Your task to perform on an android device: Go to settings Image 0: 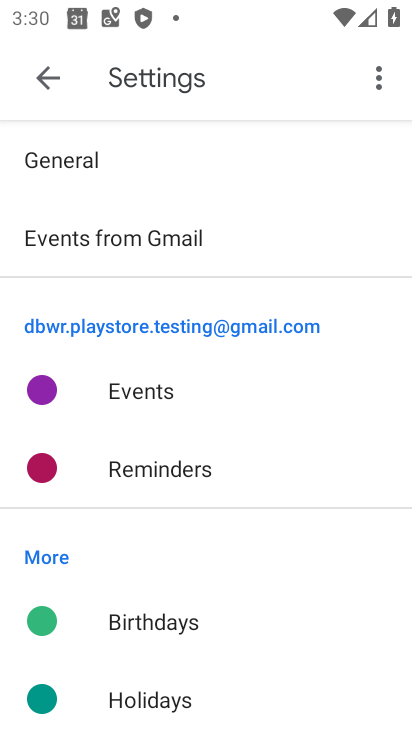
Step 0: press home button
Your task to perform on an android device: Go to settings Image 1: 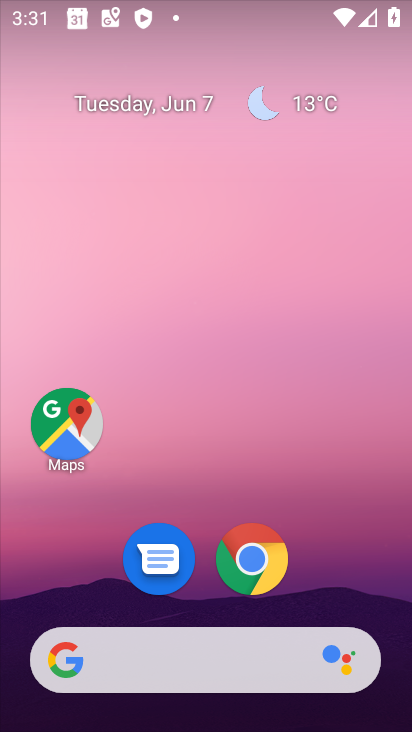
Step 1: drag from (329, 568) to (231, 235)
Your task to perform on an android device: Go to settings Image 2: 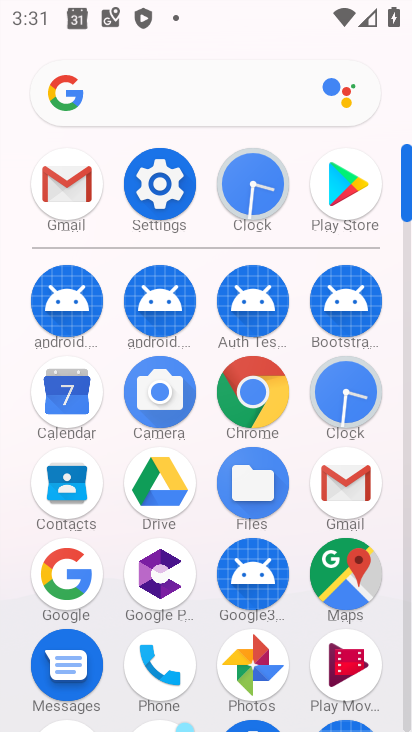
Step 2: click (160, 186)
Your task to perform on an android device: Go to settings Image 3: 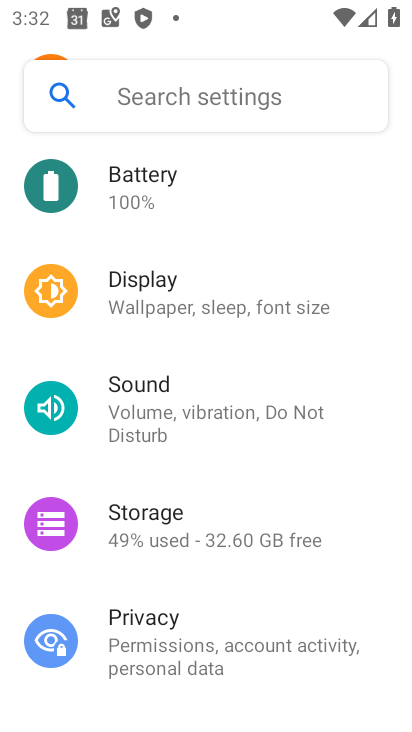
Step 3: task complete